Your task to perform on an android device: Open Google Maps Image 0: 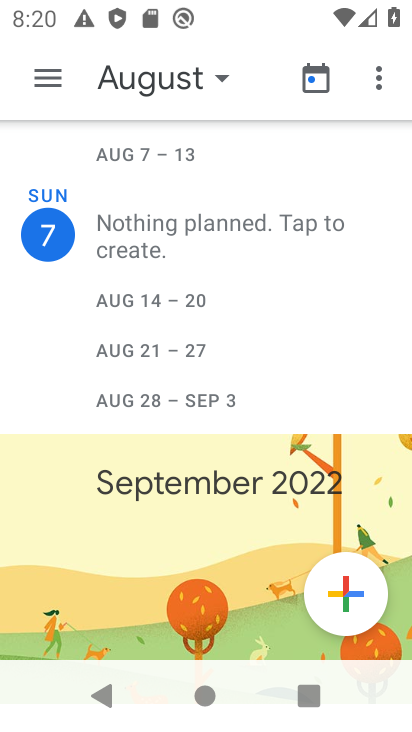
Step 0: press home button
Your task to perform on an android device: Open Google Maps Image 1: 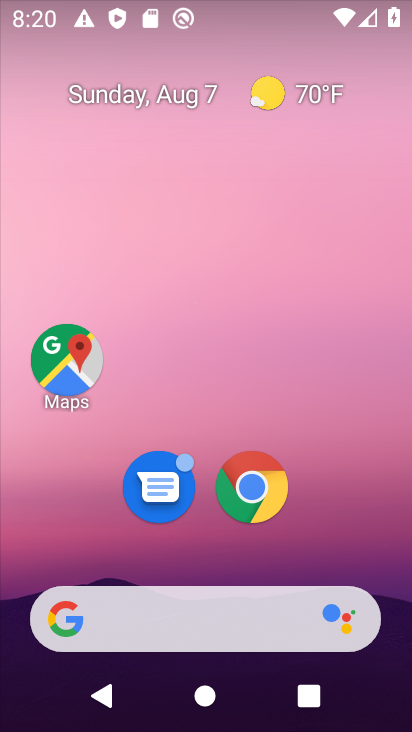
Step 1: click (66, 362)
Your task to perform on an android device: Open Google Maps Image 2: 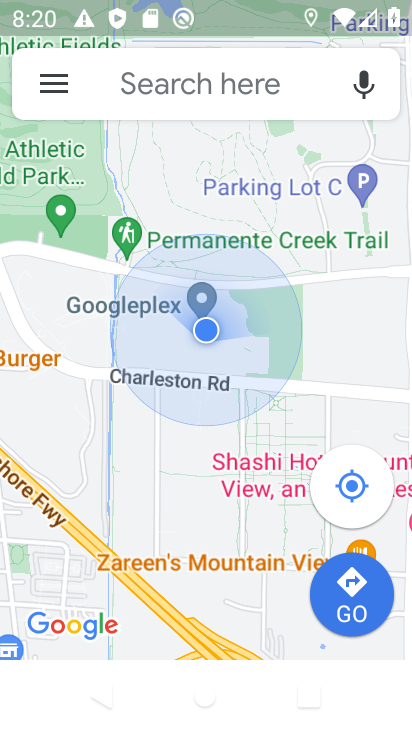
Step 2: task complete